Your task to perform on an android device: turn off location history Image 0: 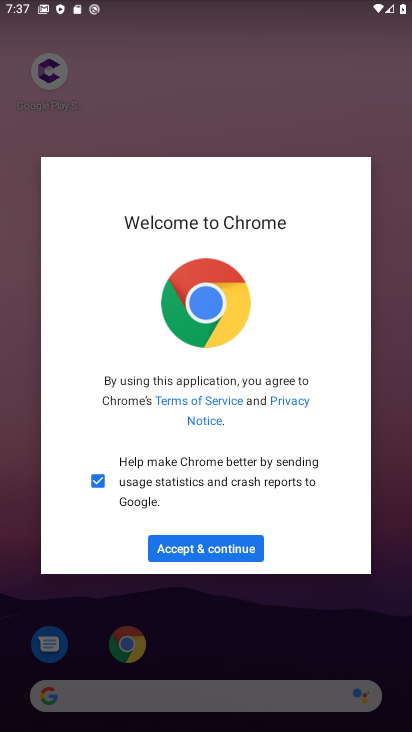
Step 0: click (260, 548)
Your task to perform on an android device: turn off location history Image 1: 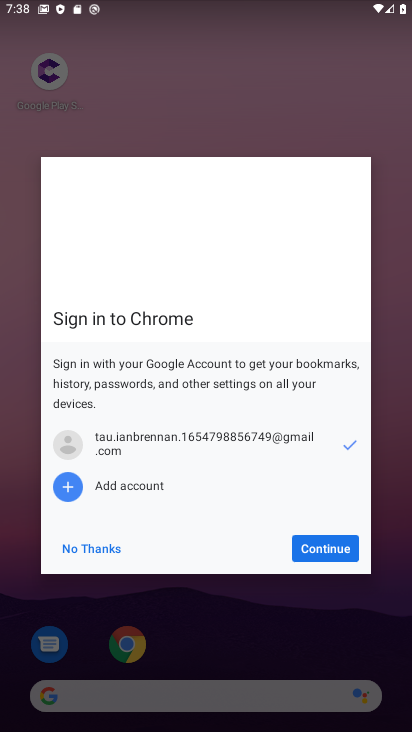
Step 1: click (340, 551)
Your task to perform on an android device: turn off location history Image 2: 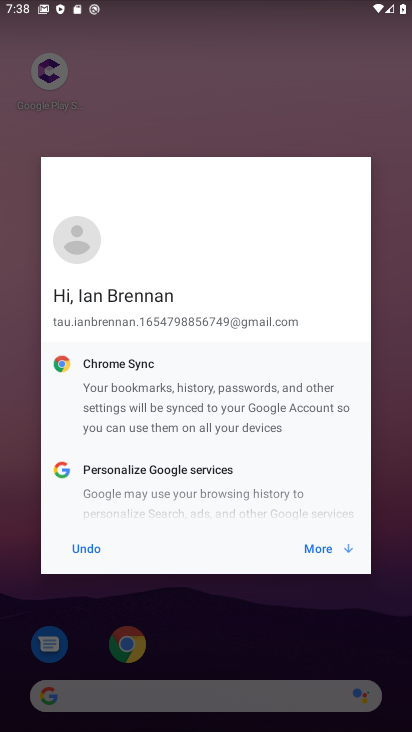
Step 2: press home button
Your task to perform on an android device: turn off location history Image 3: 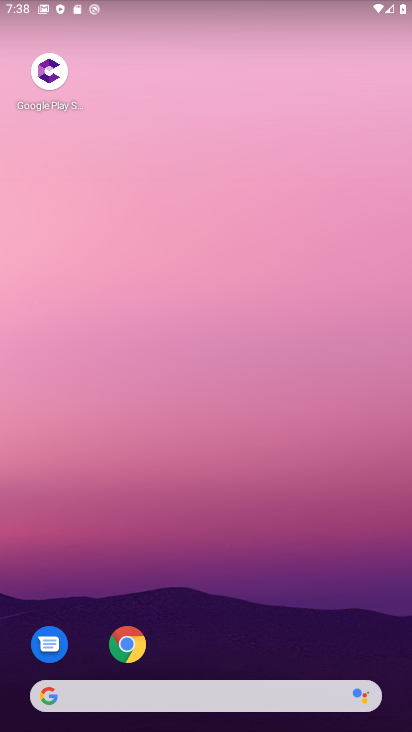
Step 3: drag from (240, 417) to (257, 0)
Your task to perform on an android device: turn off location history Image 4: 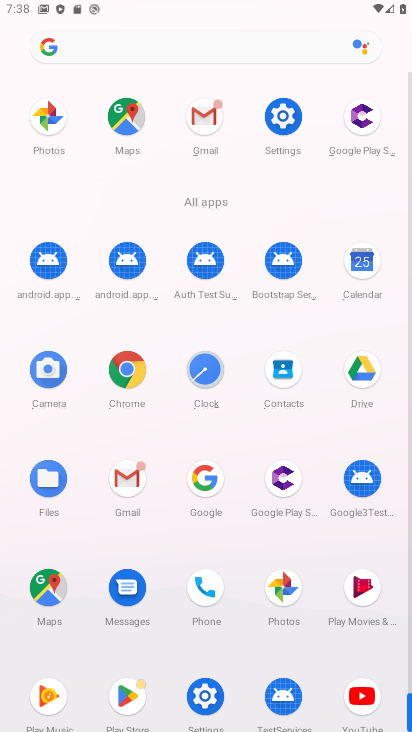
Step 4: click (282, 128)
Your task to perform on an android device: turn off location history Image 5: 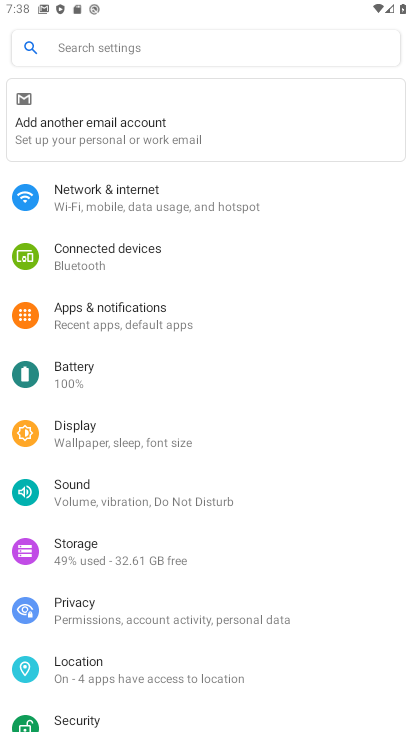
Step 5: click (131, 667)
Your task to perform on an android device: turn off location history Image 6: 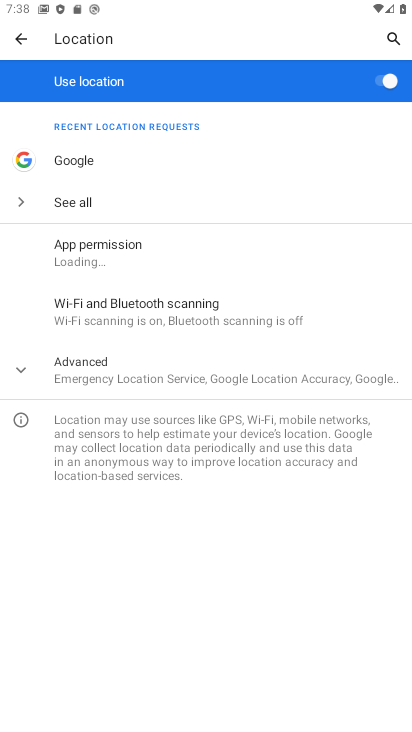
Step 6: click (158, 370)
Your task to perform on an android device: turn off location history Image 7: 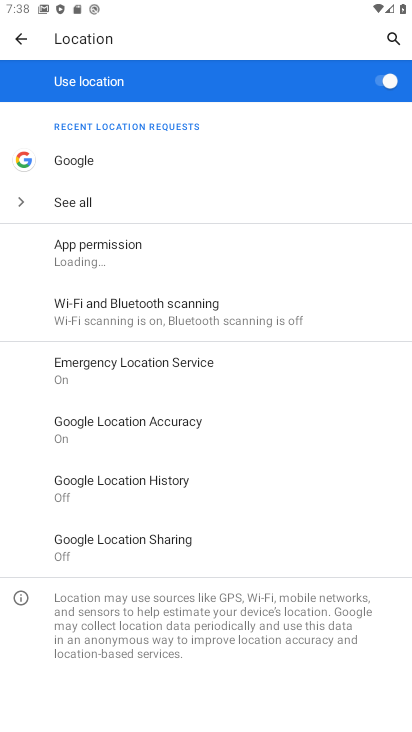
Step 7: click (134, 494)
Your task to perform on an android device: turn off location history Image 8: 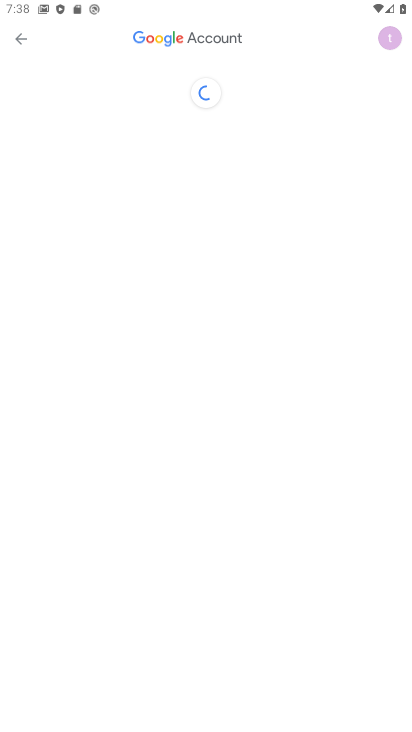
Step 8: task complete